Your task to perform on an android device: Is it going to rain today? Image 0: 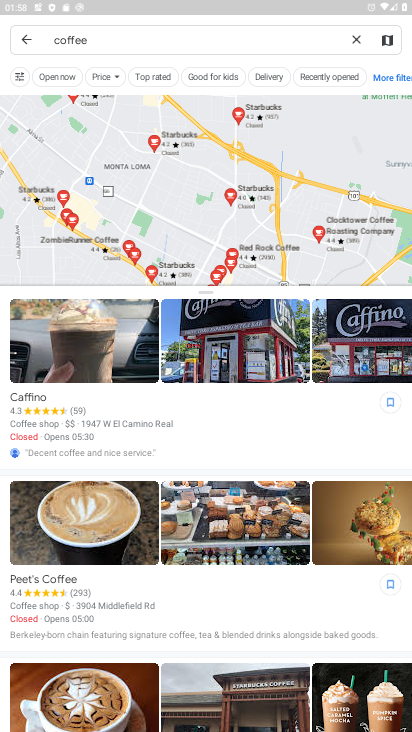
Step 0: press home button
Your task to perform on an android device: Is it going to rain today? Image 1: 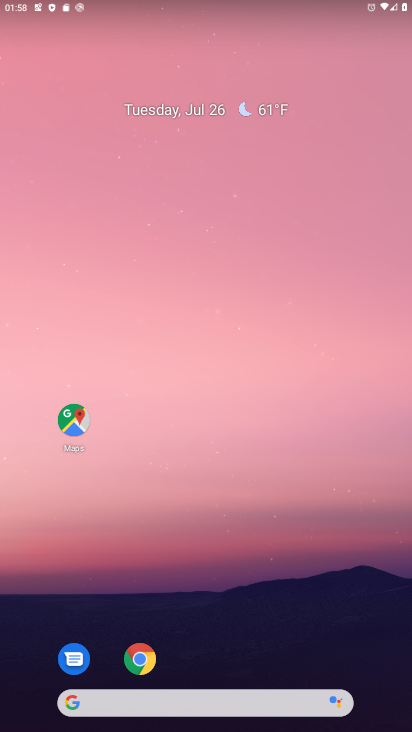
Step 1: drag from (309, 643) to (241, 0)
Your task to perform on an android device: Is it going to rain today? Image 2: 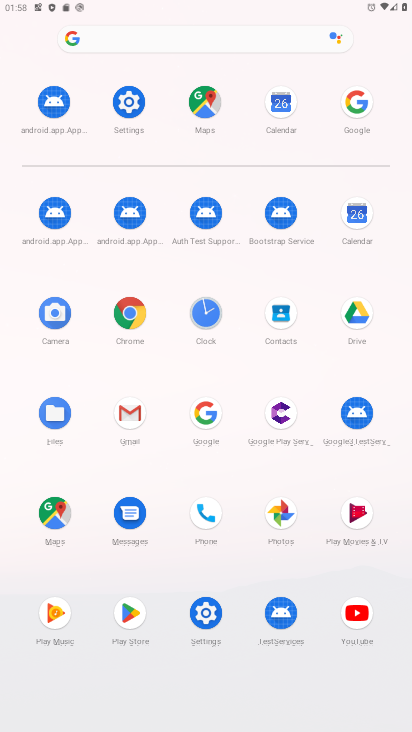
Step 2: click (126, 318)
Your task to perform on an android device: Is it going to rain today? Image 3: 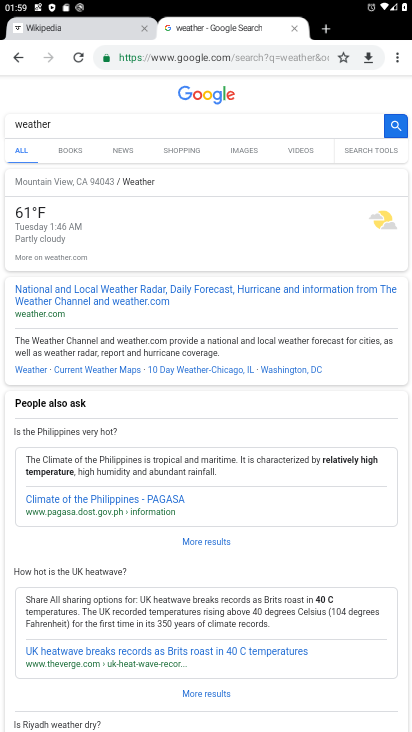
Step 3: task complete